Your task to perform on an android device: change alarm snooze length Image 0: 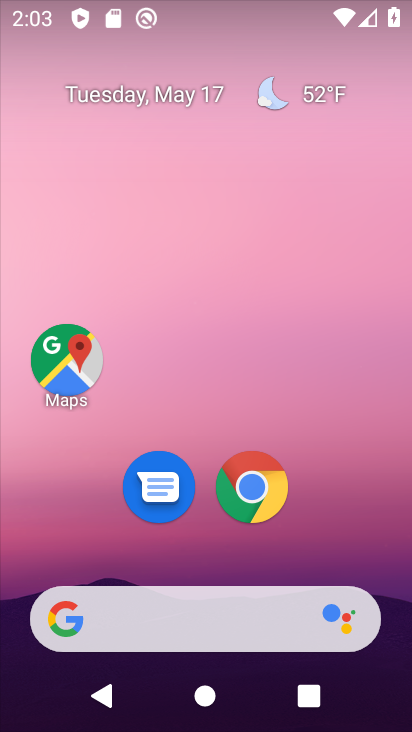
Step 0: click (365, 200)
Your task to perform on an android device: change alarm snooze length Image 1: 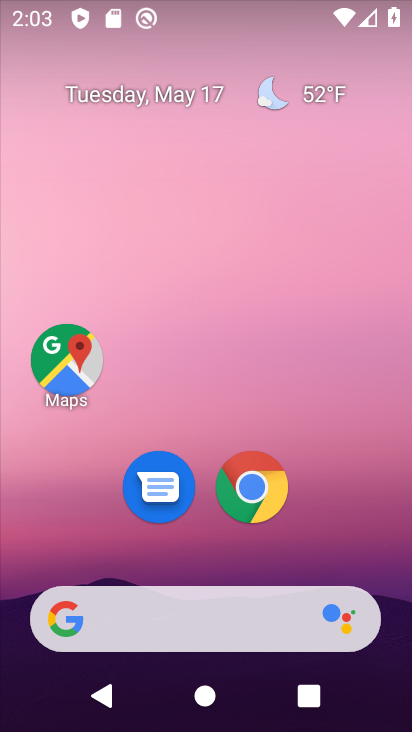
Step 1: drag from (402, 639) to (385, 292)
Your task to perform on an android device: change alarm snooze length Image 2: 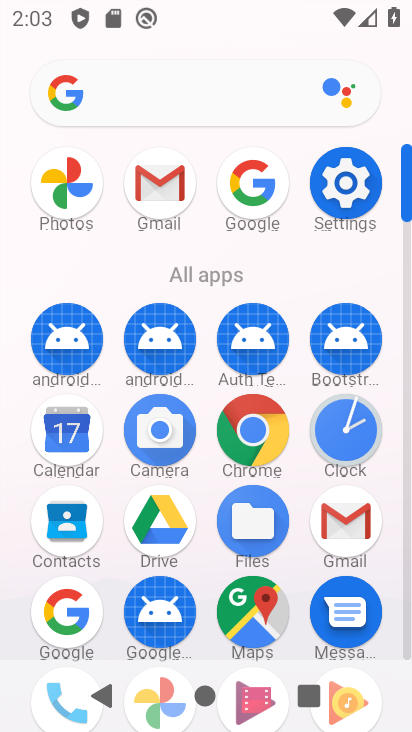
Step 2: click (344, 426)
Your task to perform on an android device: change alarm snooze length Image 3: 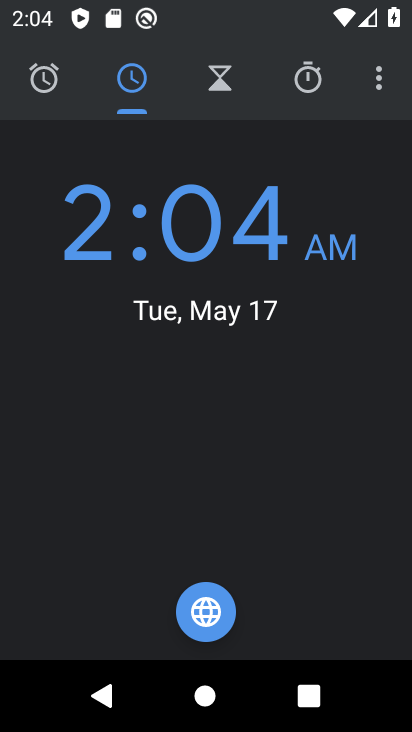
Step 3: click (381, 76)
Your task to perform on an android device: change alarm snooze length Image 4: 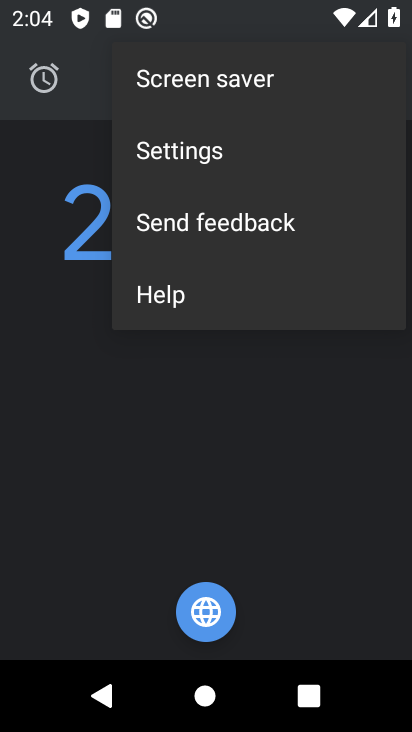
Step 4: click (200, 135)
Your task to perform on an android device: change alarm snooze length Image 5: 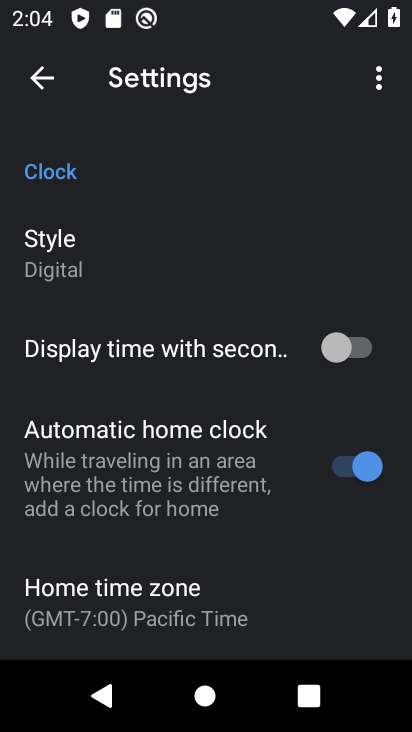
Step 5: drag from (260, 579) to (226, 293)
Your task to perform on an android device: change alarm snooze length Image 6: 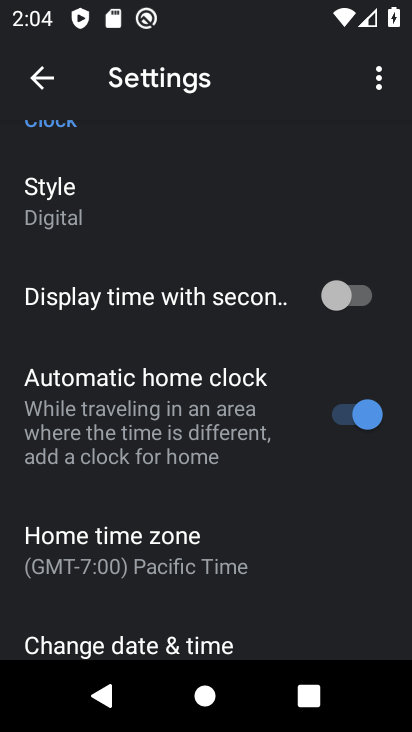
Step 6: drag from (259, 524) to (242, 379)
Your task to perform on an android device: change alarm snooze length Image 7: 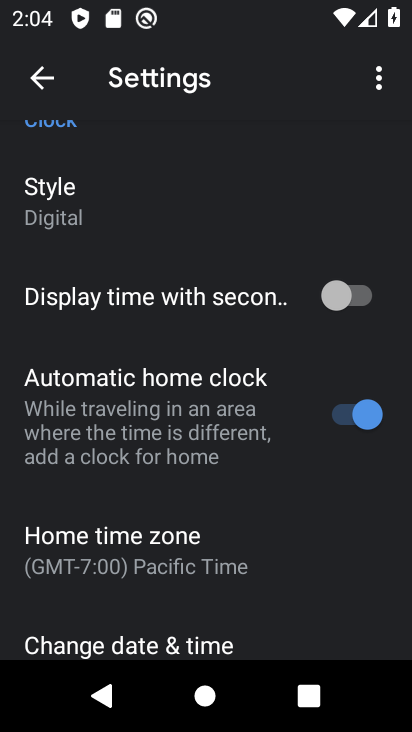
Step 7: drag from (248, 599) to (305, 230)
Your task to perform on an android device: change alarm snooze length Image 8: 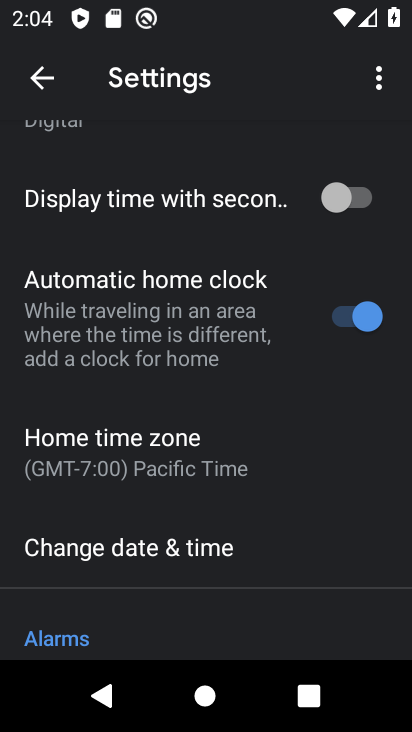
Step 8: drag from (320, 541) to (329, 308)
Your task to perform on an android device: change alarm snooze length Image 9: 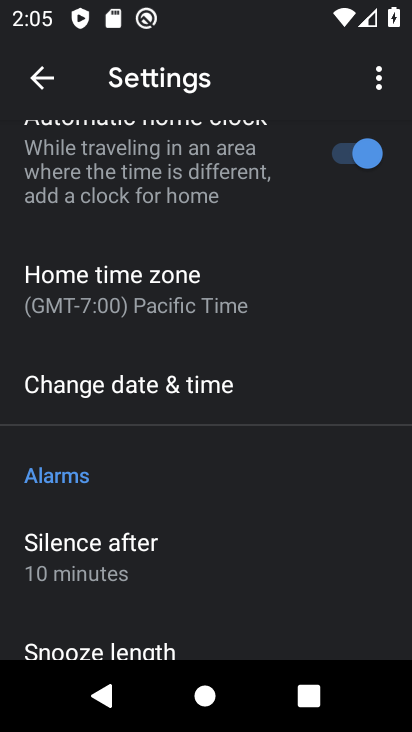
Step 9: drag from (243, 582) to (232, 418)
Your task to perform on an android device: change alarm snooze length Image 10: 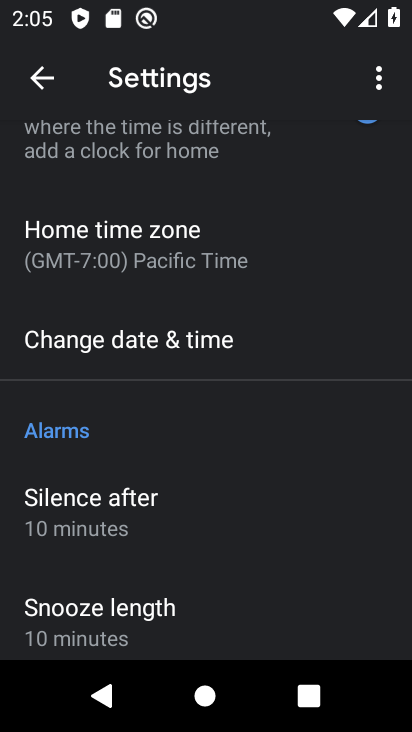
Step 10: click (100, 602)
Your task to perform on an android device: change alarm snooze length Image 11: 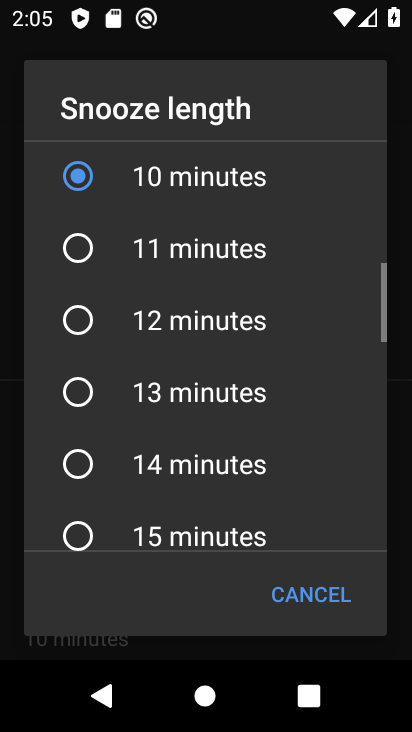
Step 11: click (91, 331)
Your task to perform on an android device: change alarm snooze length Image 12: 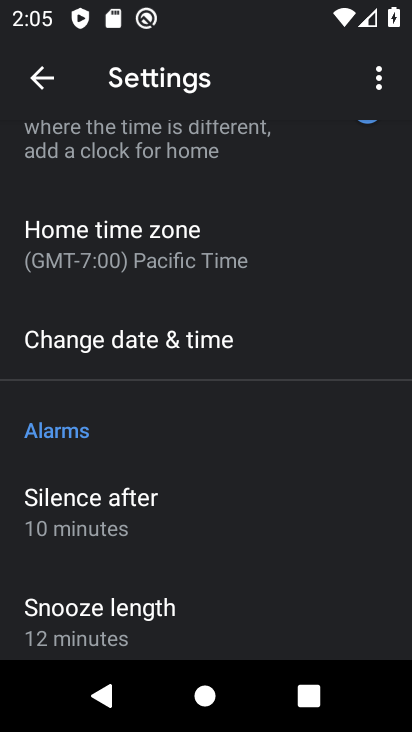
Step 12: task complete